Your task to perform on an android device: turn off data saver in the chrome app Image 0: 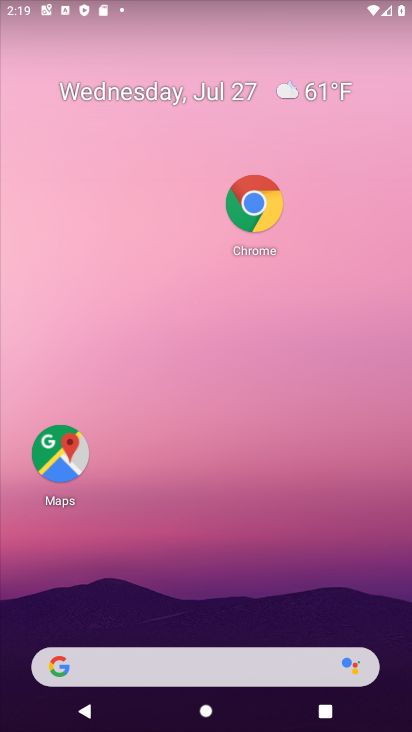
Step 0: click (258, 212)
Your task to perform on an android device: turn off data saver in the chrome app Image 1: 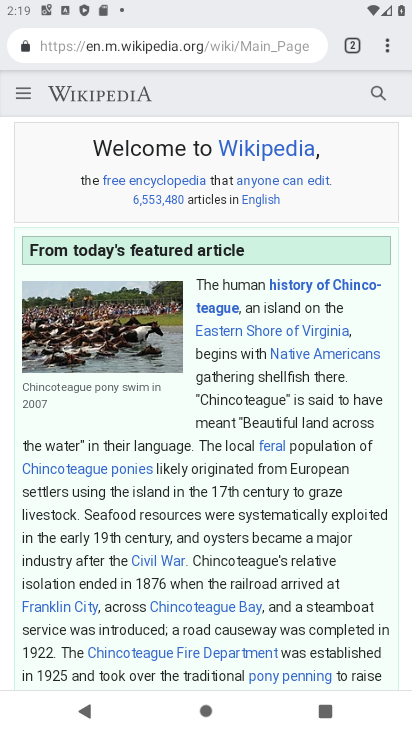
Step 1: click (392, 43)
Your task to perform on an android device: turn off data saver in the chrome app Image 2: 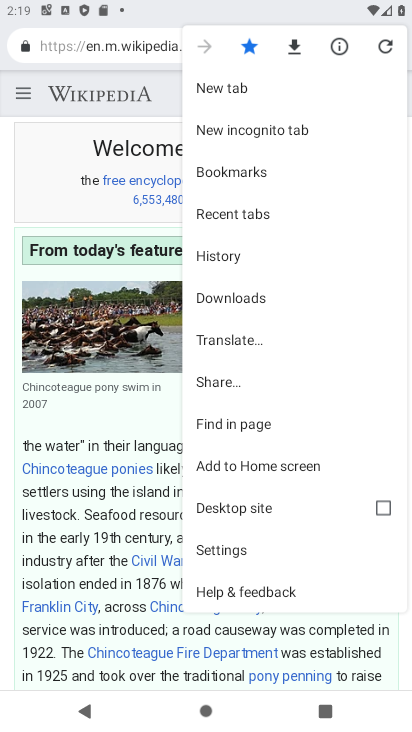
Step 2: click (240, 556)
Your task to perform on an android device: turn off data saver in the chrome app Image 3: 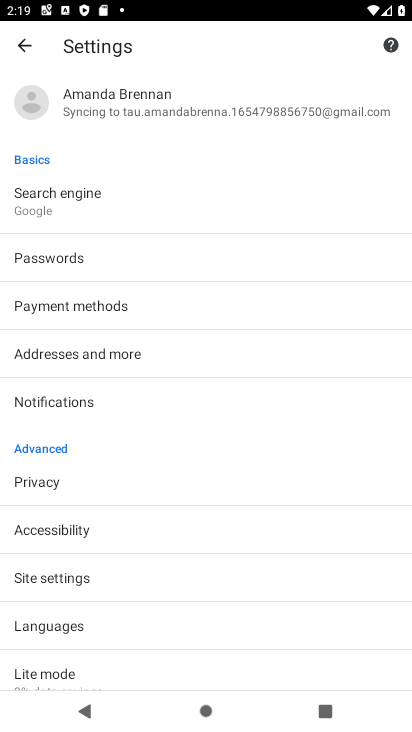
Step 3: drag from (106, 595) to (145, 378)
Your task to perform on an android device: turn off data saver in the chrome app Image 4: 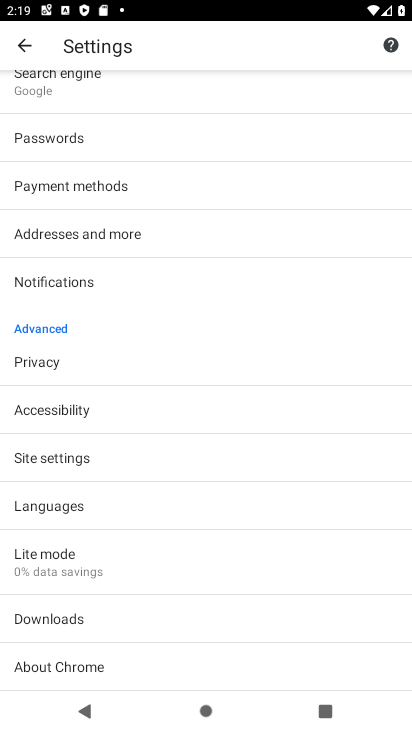
Step 4: click (70, 557)
Your task to perform on an android device: turn off data saver in the chrome app Image 5: 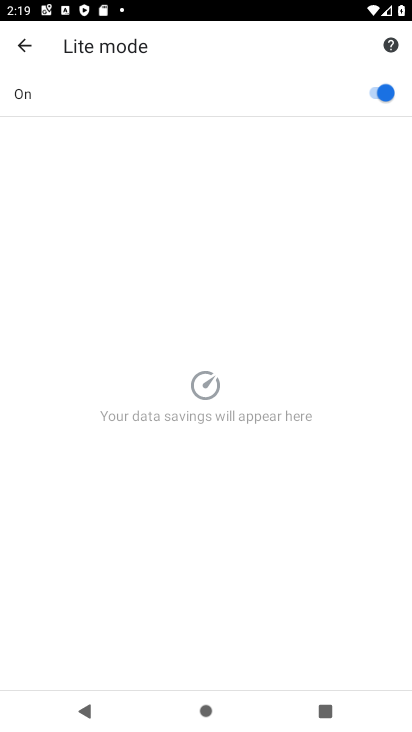
Step 5: click (385, 84)
Your task to perform on an android device: turn off data saver in the chrome app Image 6: 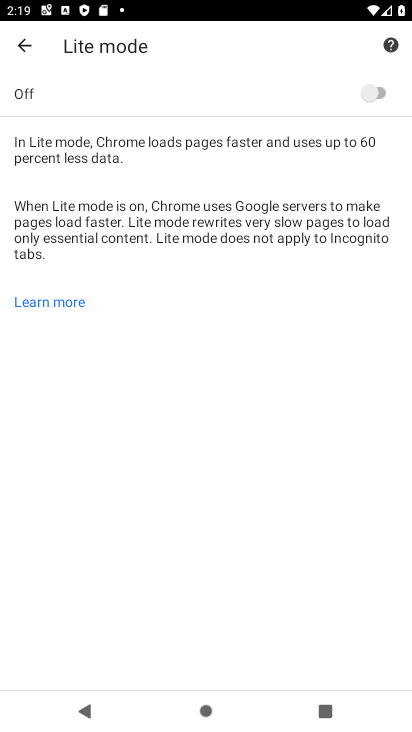
Step 6: task complete